Your task to perform on an android device: turn on the 24-hour format for clock Image 0: 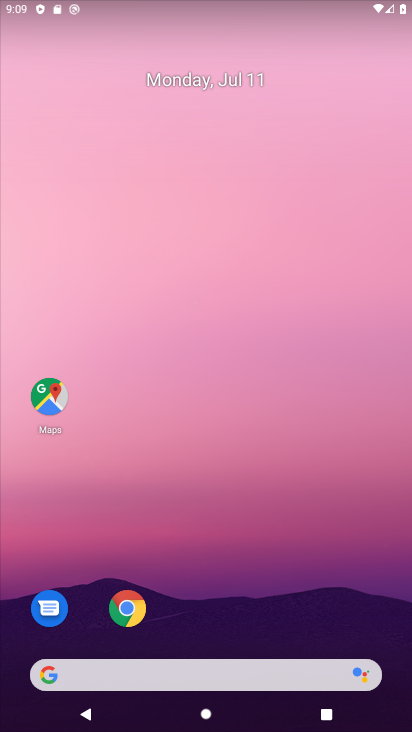
Step 0: press home button
Your task to perform on an android device: turn on the 24-hour format for clock Image 1: 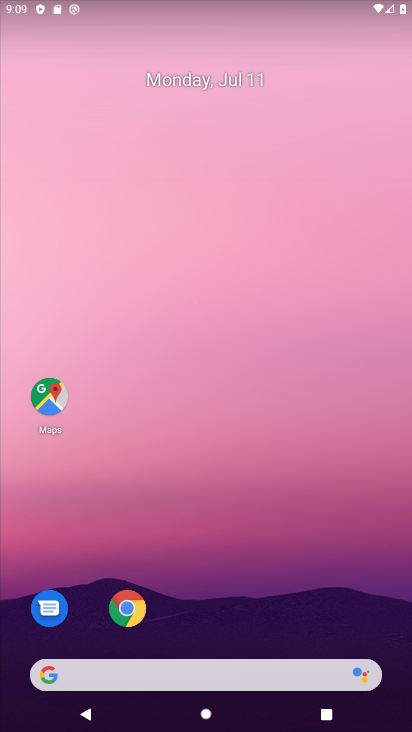
Step 1: drag from (218, 527) to (248, 178)
Your task to perform on an android device: turn on the 24-hour format for clock Image 2: 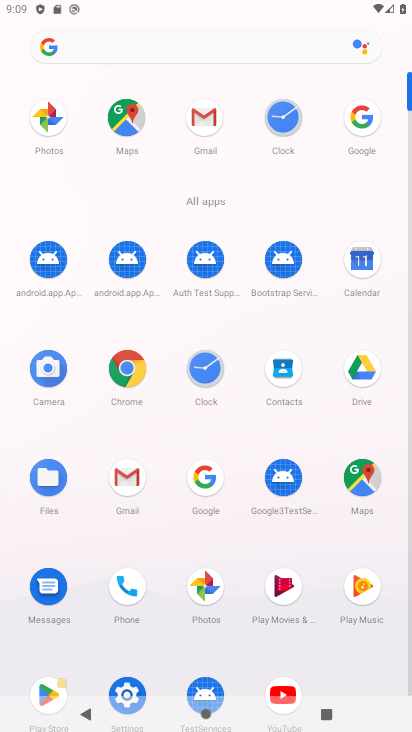
Step 2: click (215, 375)
Your task to perform on an android device: turn on the 24-hour format for clock Image 3: 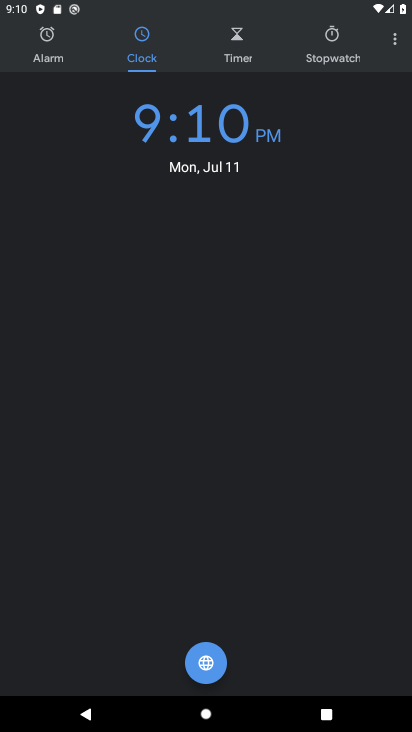
Step 3: click (397, 40)
Your task to perform on an android device: turn on the 24-hour format for clock Image 4: 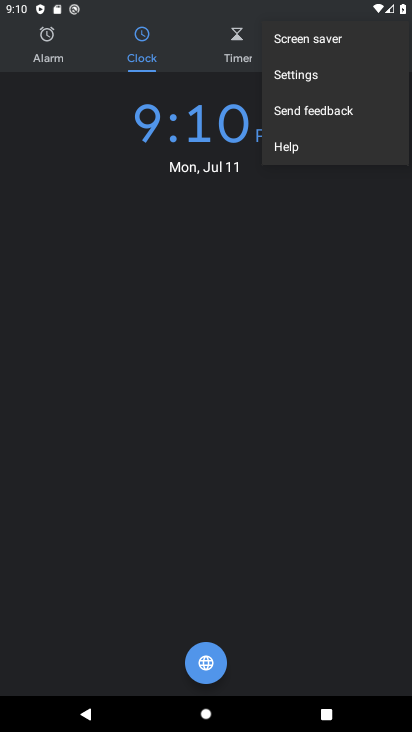
Step 4: click (309, 70)
Your task to perform on an android device: turn on the 24-hour format for clock Image 5: 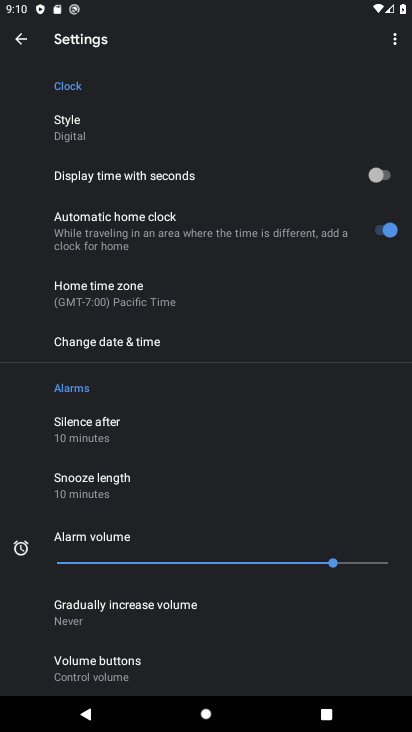
Step 5: click (101, 347)
Your task to perform on an android device: turn on the 24-hour format for clock Image 6: 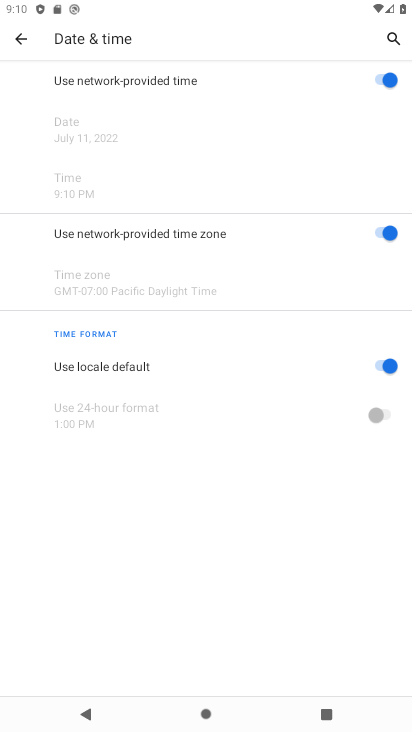
Step 6: click (378, 408)
Your task to perform on an android device: turn on the 24-hour format for clock Image 7: 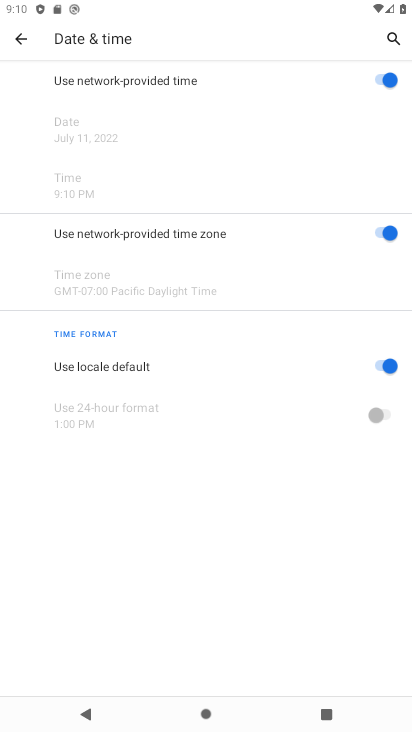
Step 7: click (387, 363)
Your task to perform on an android device: turn on the 24-hour format for clock Image 8: 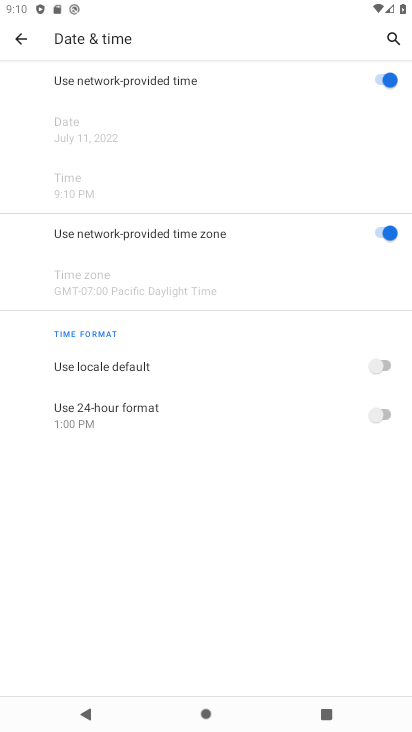
Step 8: click (389, 414)
Your task to perform on an android device: turn on the 24-hour format for clock Image 9: 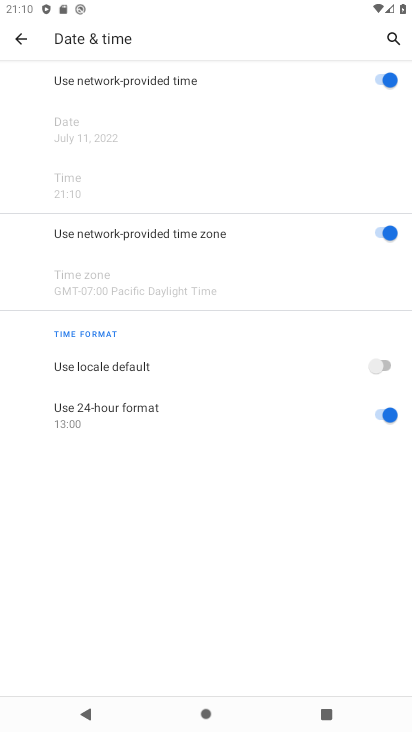
Step 9: task complete